Your task to perform on an android device: What's the weather? Image 0: 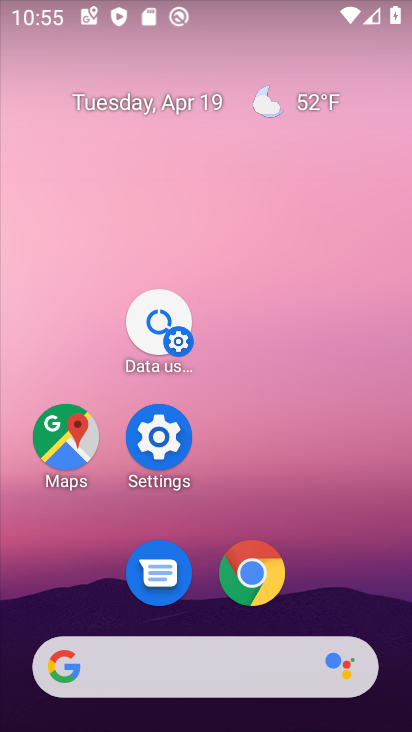
Step 0: click (314, 105)
Your task to perform on an android device: What's the weather? Image 1: 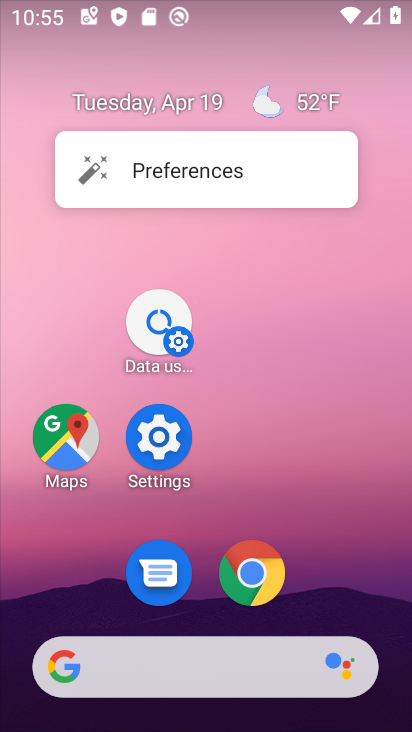
Step 1: click (304, 98)
Your task to perform on an android device: What's the weather? Image 2: 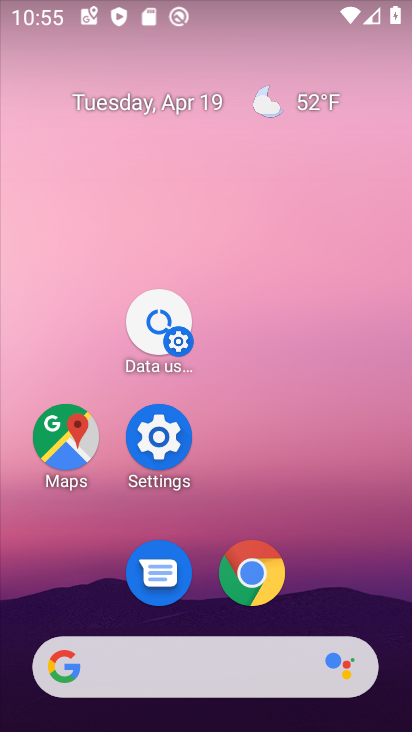
Step 2: click (315, 104)
Your task to perform on an android device: What's the weather? Image 3: 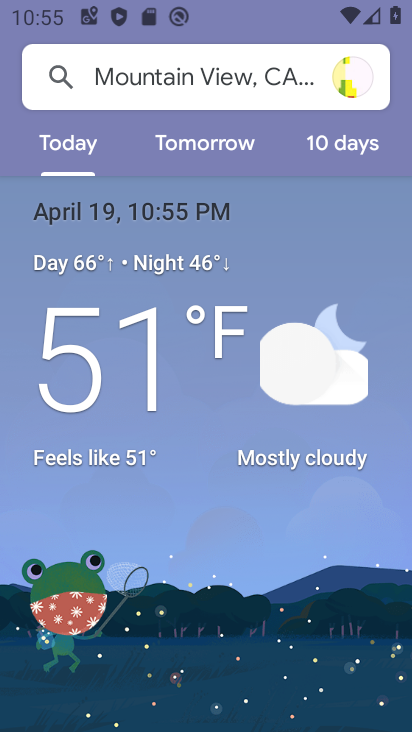
Step 3: task complete